Your task to perform on an android device: Open Wikipedia Image 0: 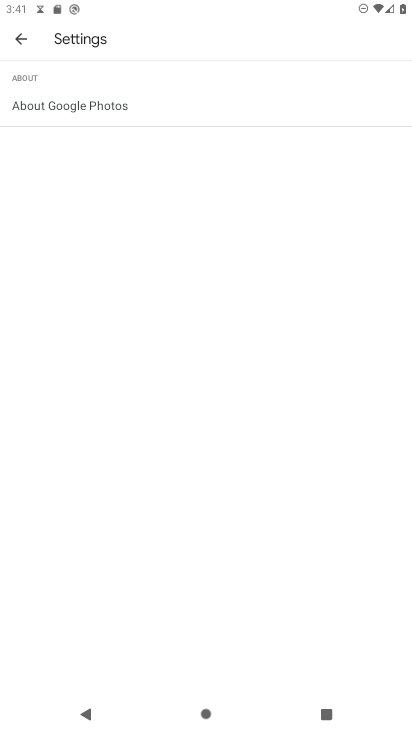
Step 0: press home button
Your task to perform on an android device: Open Wikipedia Image 1: 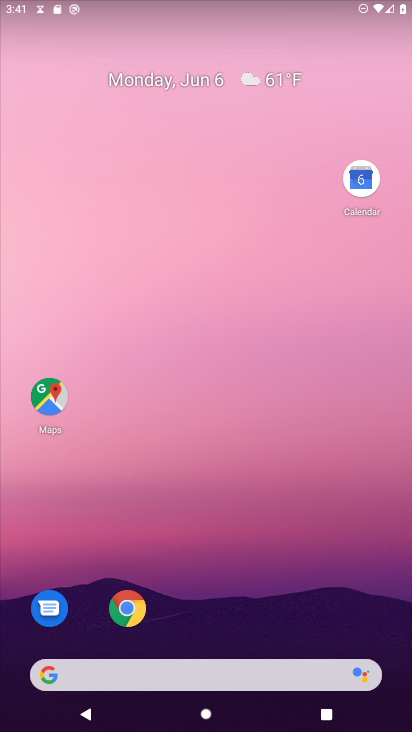
Step 1: click (57, 393)
Your task to perform on an android device: Open Wikipedia Image 2: 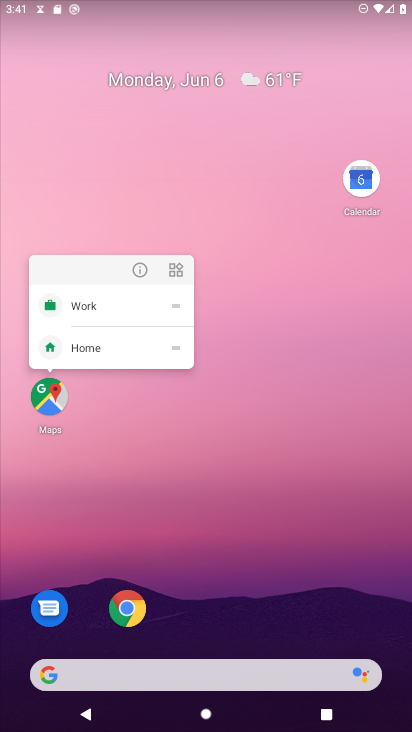
Step 2: click (136, 608)
Your task to perform on an android device: Open Wikipedia Image 3: 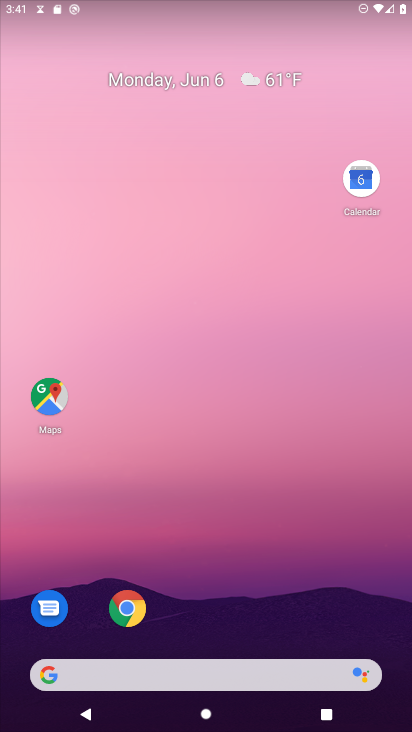
Step 3: click (126, 605)
Your task to perform on an android device: Open Wikipedia Image 4: 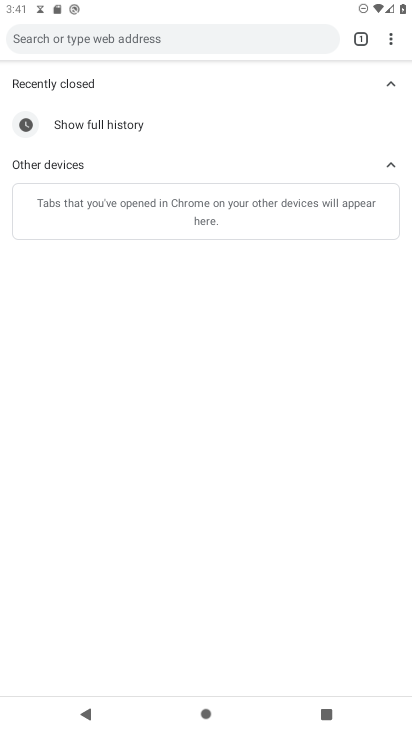
Step 4: click (383, 35)
Your task to perform on an android device: Open Wikipedia Image 5: 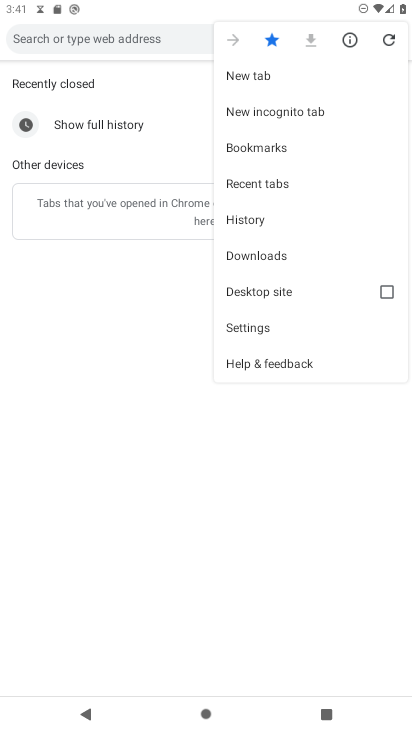
Step 5: click (284, 322)
Your task to perform on an android device: Open Wikipedia Image 6: 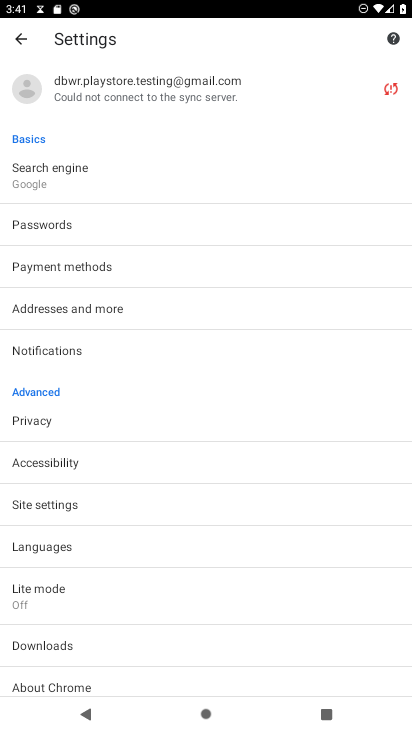
Step 6: click (26, 46)
Your task to perform on an android device: Open Wikipedia Image 7: 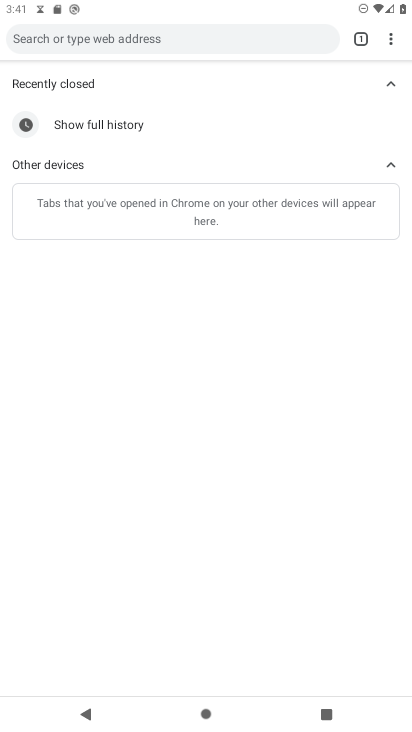
Step 7: click (107, 44)
Your task to perform on an android device: Open Wikipedia Image 8: 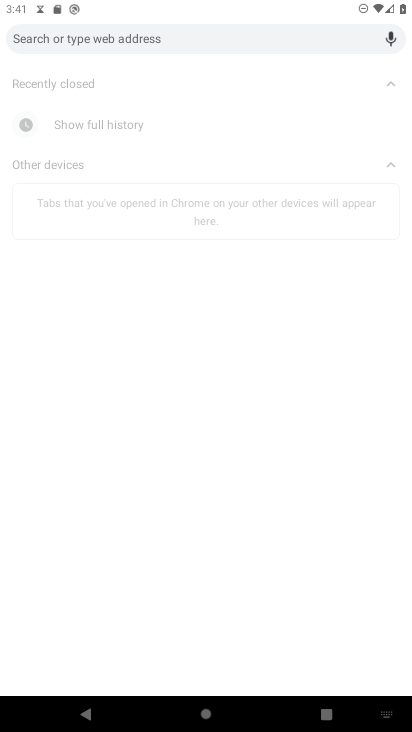
Step 8: type "wikipedia"
Your task to perform on an android device: Open Wikipedia Image 9: 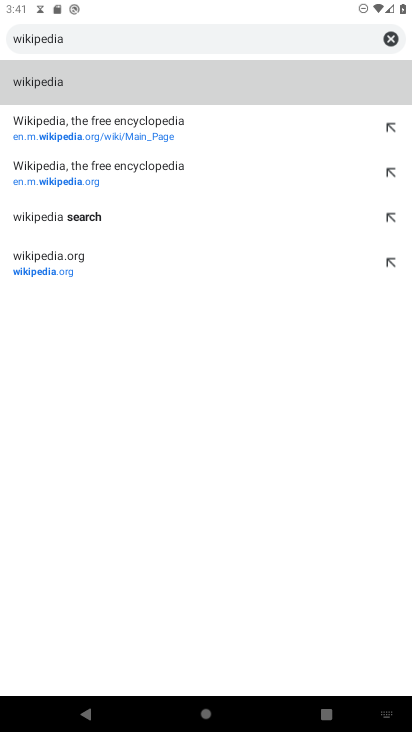
Step 9: click (63, 93)
Your task to perform on an android device: Open Wikipedia Image 10: 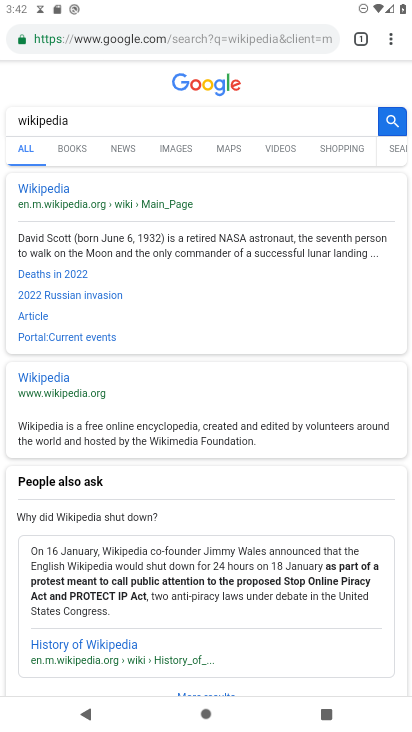
Step 10: click (52, 188)
Your task to perform on an android device: Open Wikipedia Image 11: 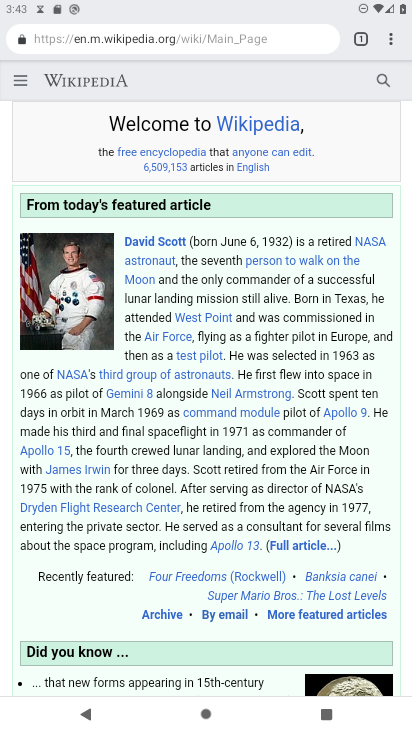
Step 11: task complete